Your task to perform on an android device: Open Google Maps Image 0: 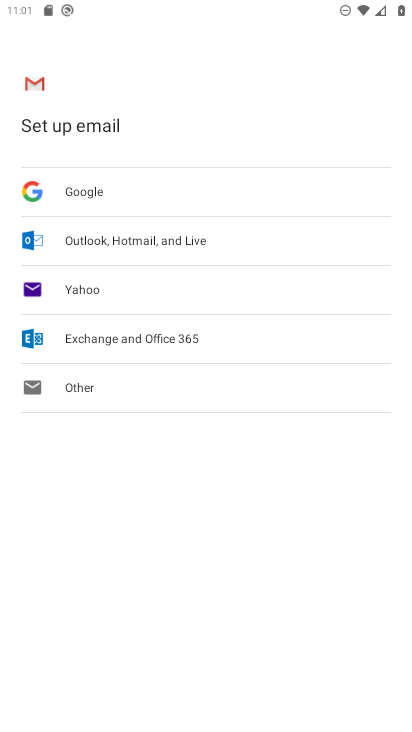
Step 0: press home button
Your task to perform on an android device: Open Google Maps Image 1: 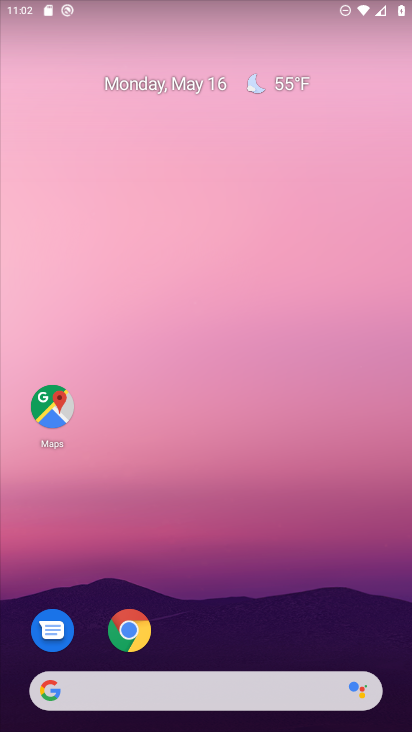
Step 1: click (54, 401)
Your task to perform on an android device: Open Google Maps Image 2: 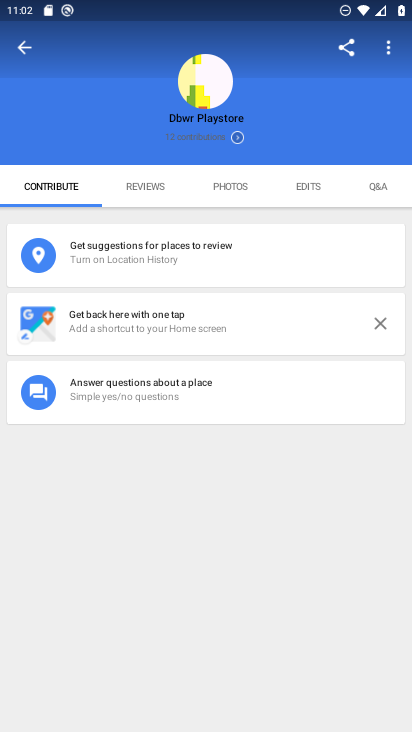
Step 2: click (30, 45)
Your task to perform on an android device: Open Google Maps Image 3: 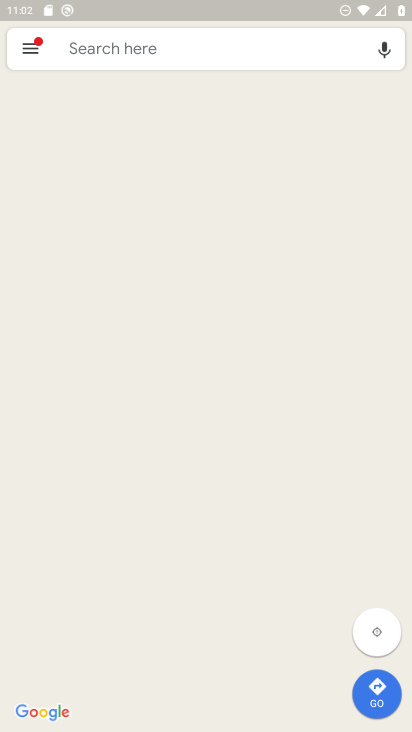
Step 3: task complete